Your task to perform on an android device: Search for pizza restaurants on Maps Image 0: 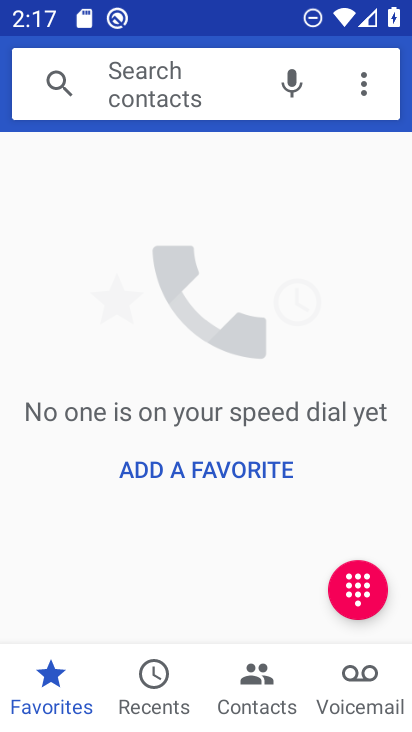
Step 0: press home button
Your task to perform on an android device: Search for pizza restaurants on Maps Image 1: 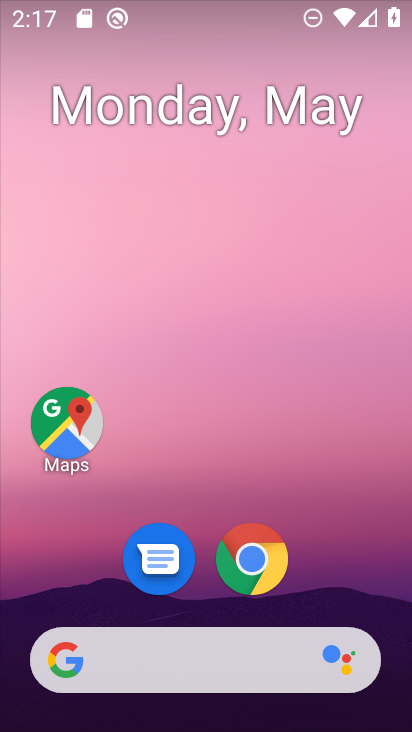
Step 1: click (67, 431)
Your task to perform on an android device: Search for pizza restaurants on Maps Image 2: 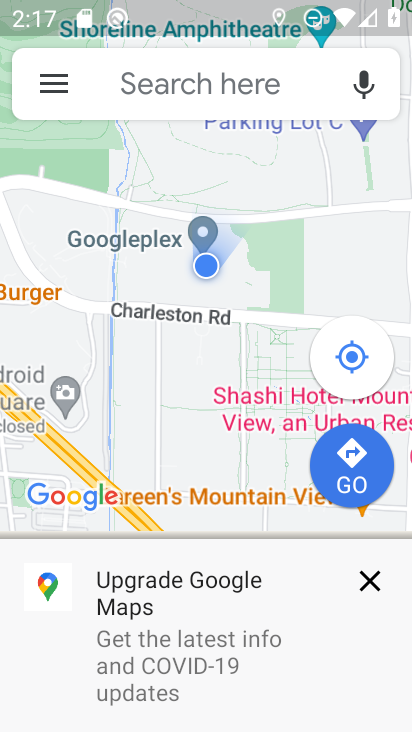
Step 2: click (126, 79)
Your task to perform on an android device: Search for pizza restaurants on Maps Image 3: 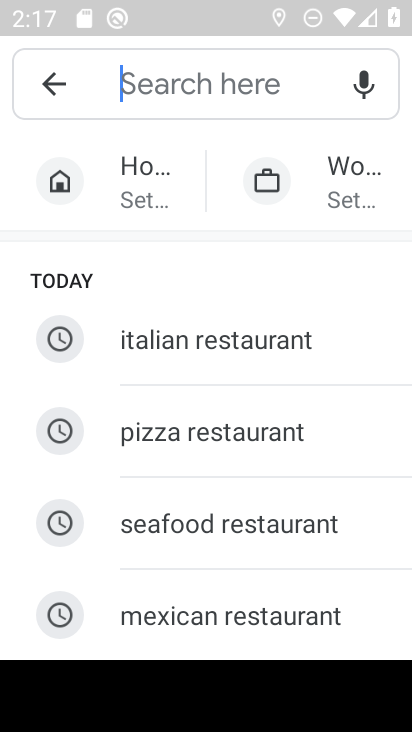
Step 3: type "pizza restaurant"
Your task to perform on an android device: Search for pizza restaurants on Maps Image 4: 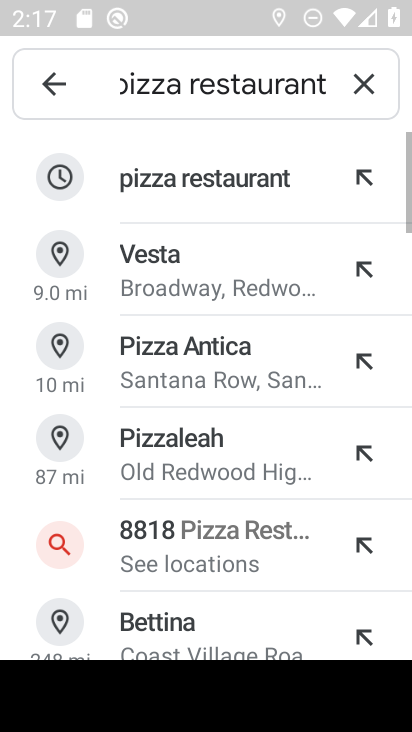
Step 4: click (195, 183)
Your task to perform on an android device: Search for pizza restaurants on Maps Image 5: 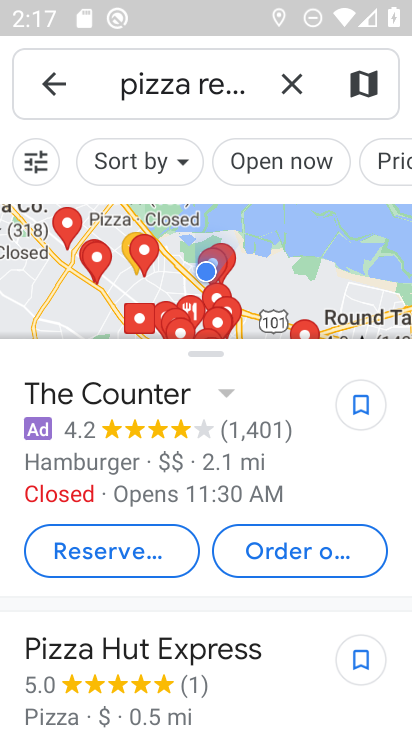
Step 5: task complete